Your task to perform on an android device: Go to Wikipedia Image 0: 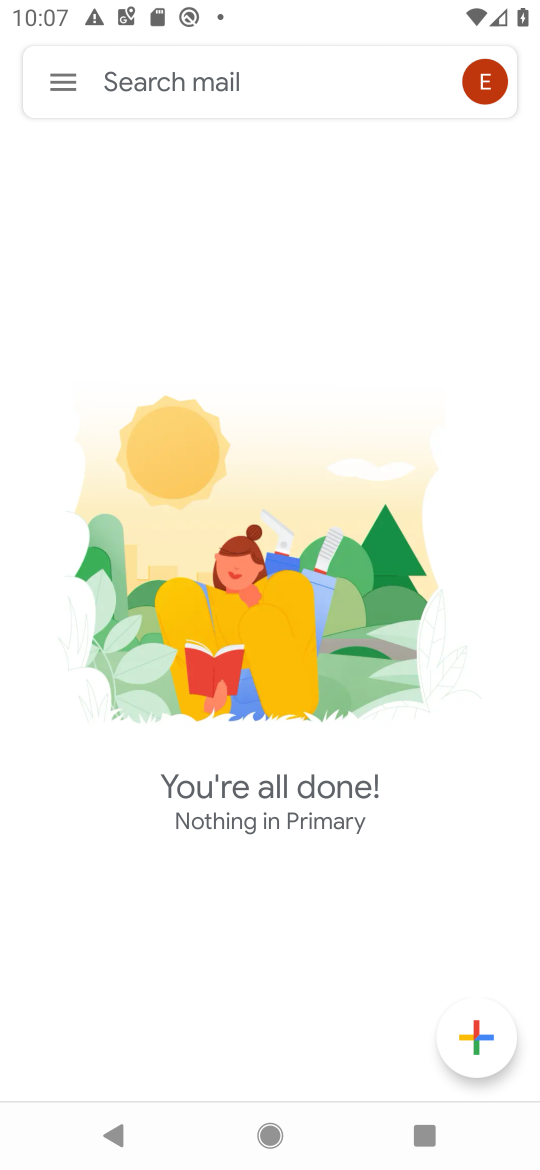
Step 0: press home button
Your task to perform on an android device: Go to Wikipedia Image 1: 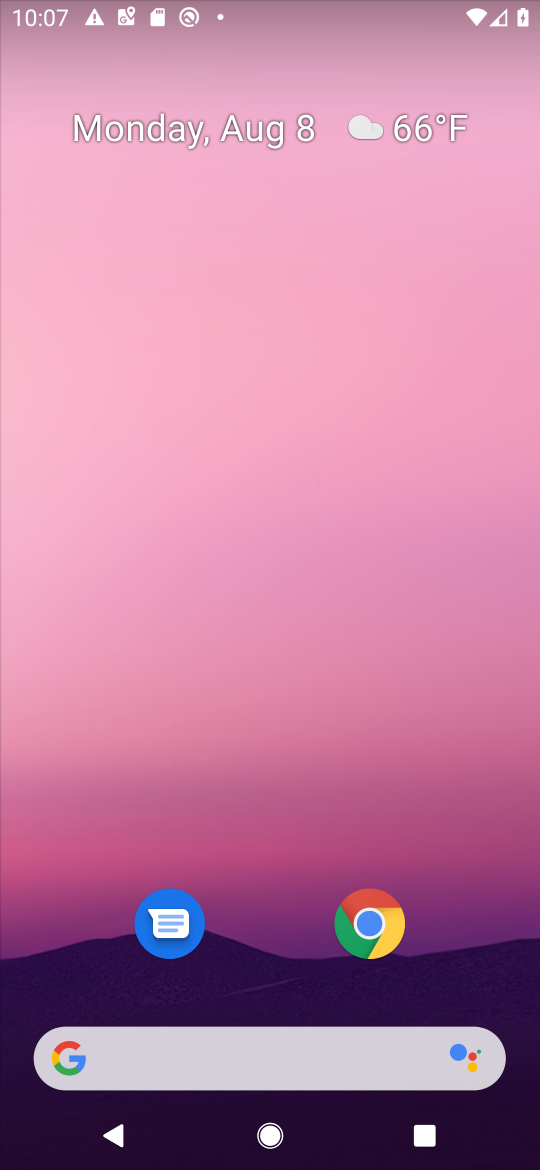
Step 1: click (120, 1039)
Your task to perform on an android device: Go to Wikipedia Image 2: 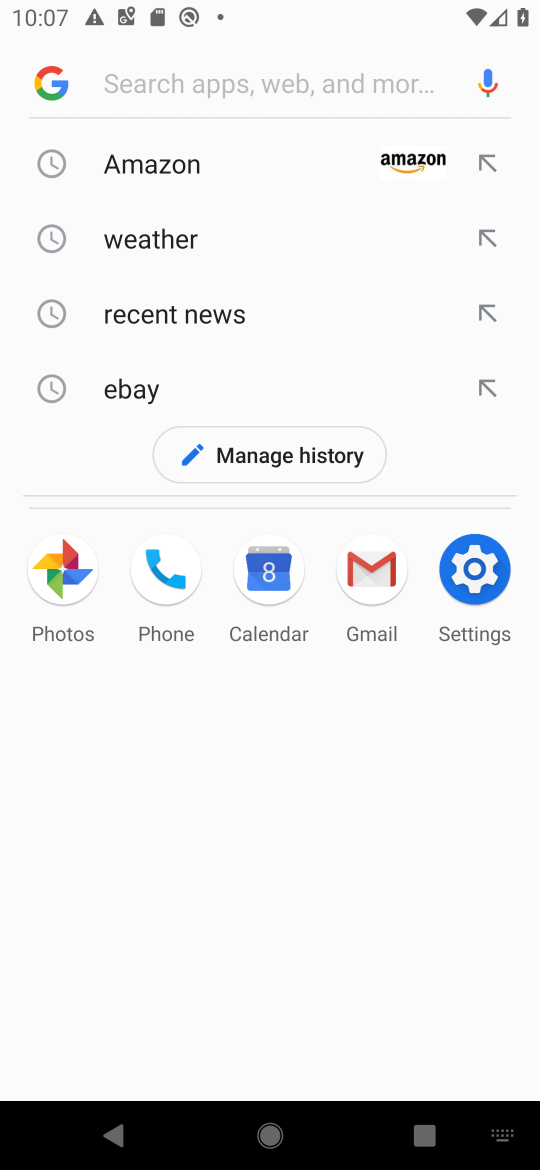
Step 2: type "Wikipedia"
Your task to perform on an android device: Go to Wikipedia Image 3: 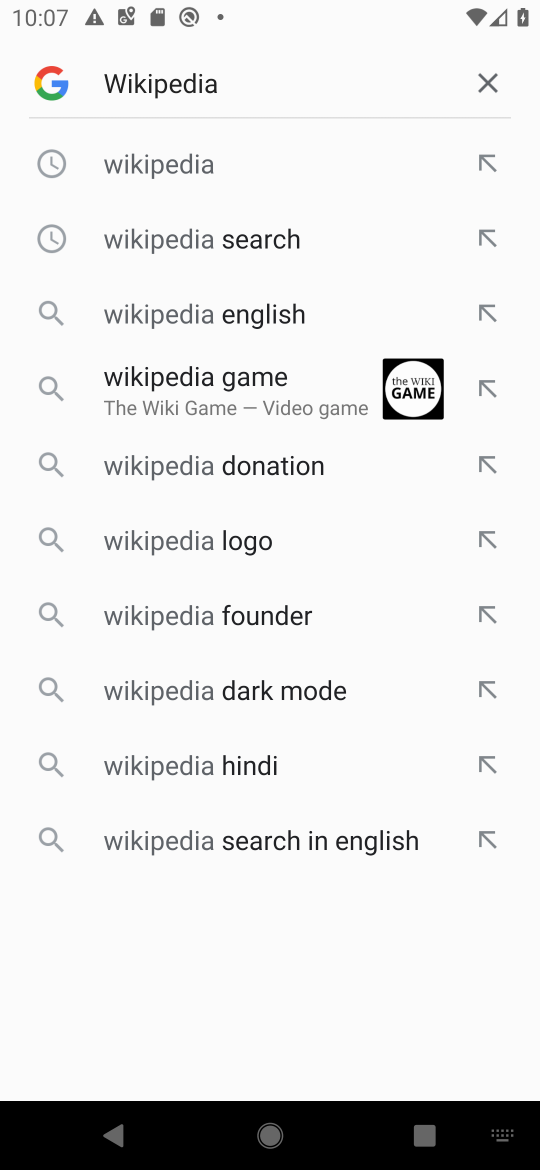
Step 3: click (179, 151)
Your task to perform on an android device: Go to Wikipedia Image 4: 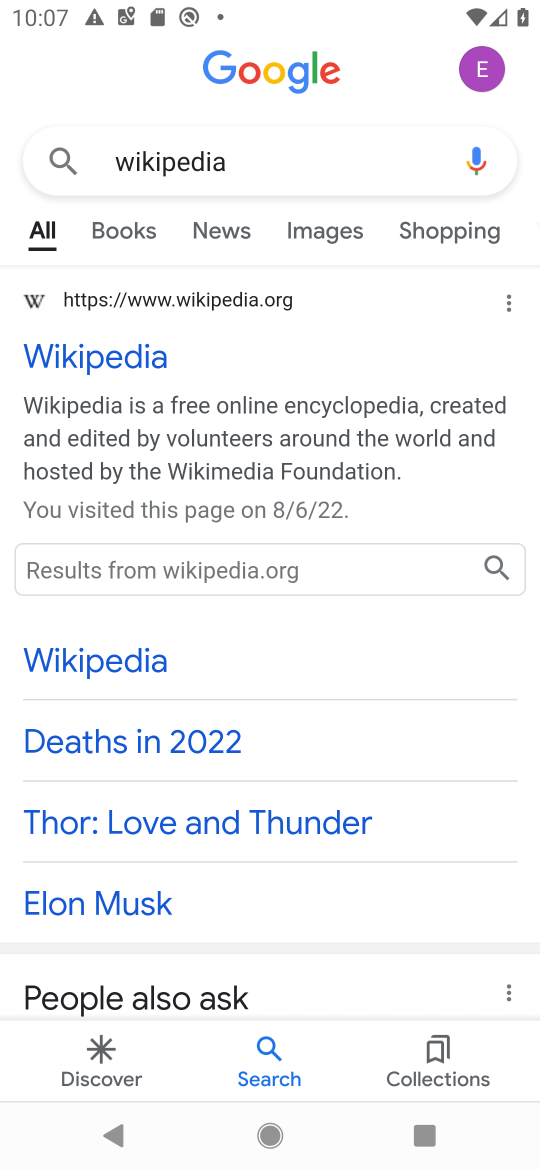
Step 4: task complete